Your task to perform on an android device: Open Youtube and go to "Your channel" Image 0: 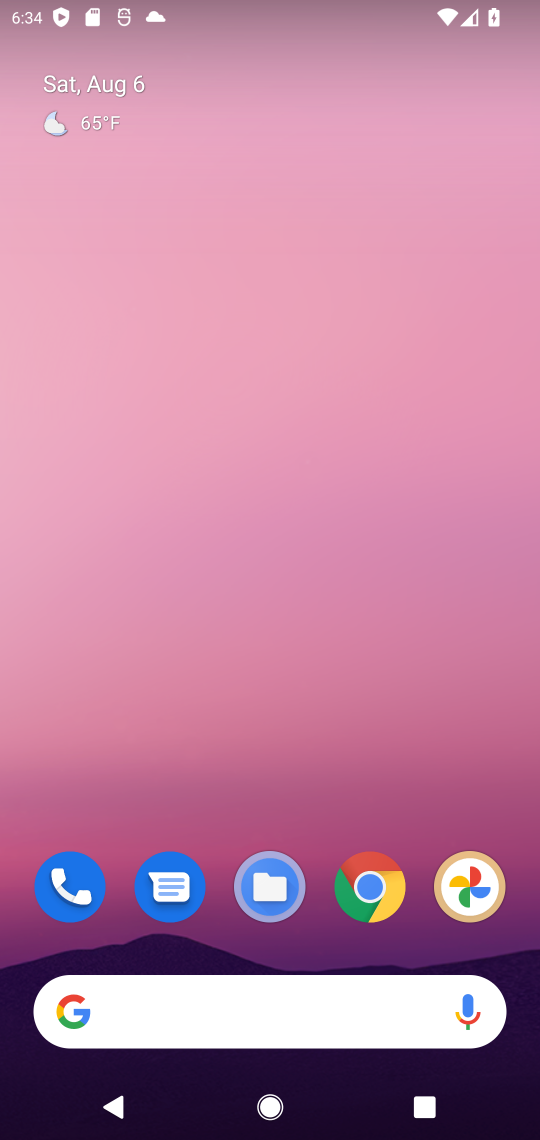
Step 0: click (155, 361)
Your task to perform on an android device: Open Youtube and go to "Your channel" Image 1: 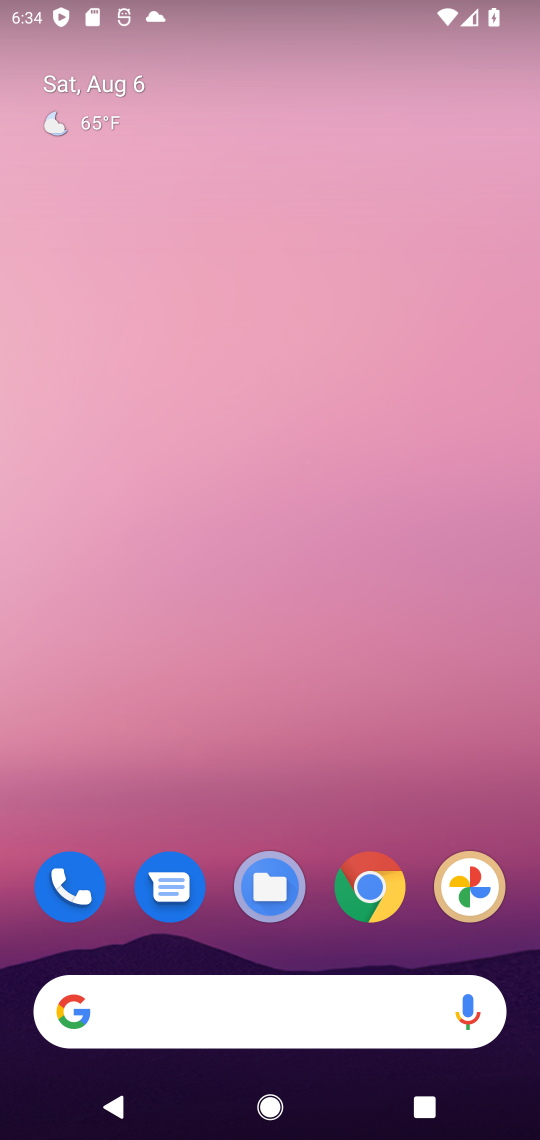
Step 1: drag from (269, 313) to (259, 250)
Your task to perform on an android device: Open Youtube and go to "Your channel" Image 2: 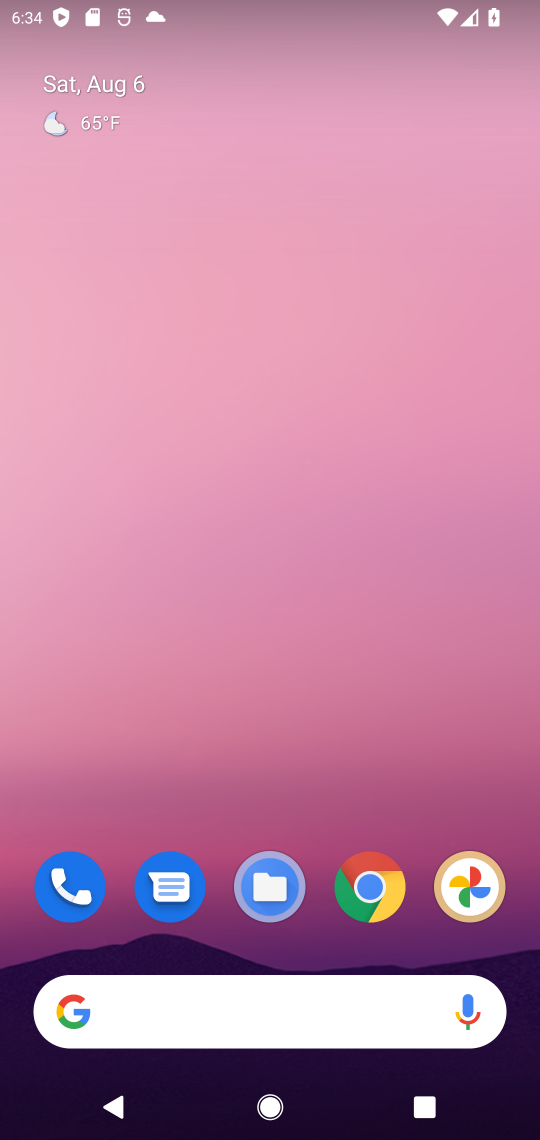
Step 2: drag from (256, 644) to (209, 323)
Your task to perform on an android device: Open Youtube and go to "Your channel" Image 3: 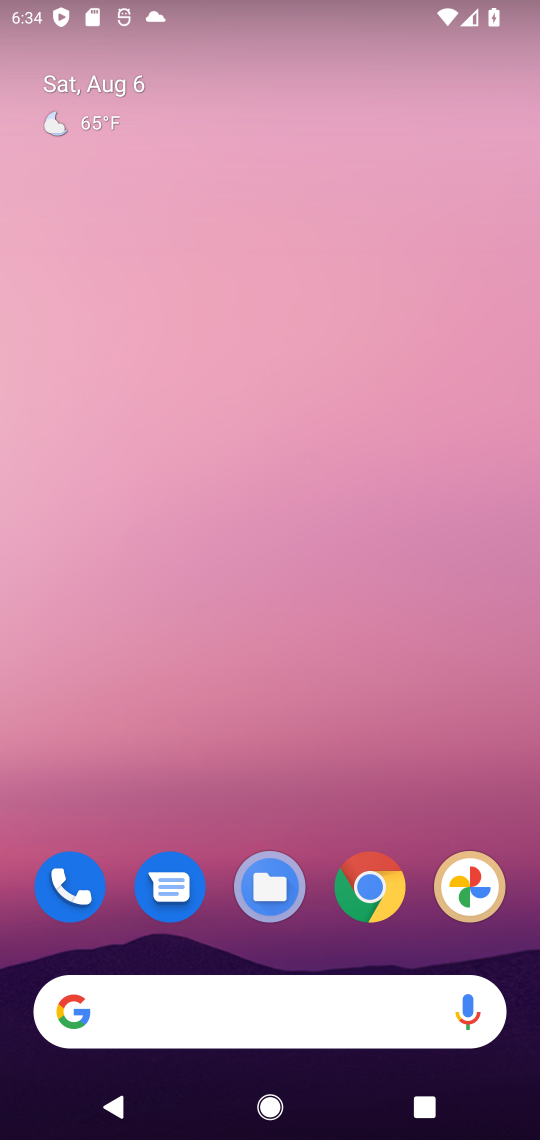
Step 3: drag from (279, 415) to (264, 221)
Your task to perform on an android device: Open Youtube and go to "Your channel" Image 4: 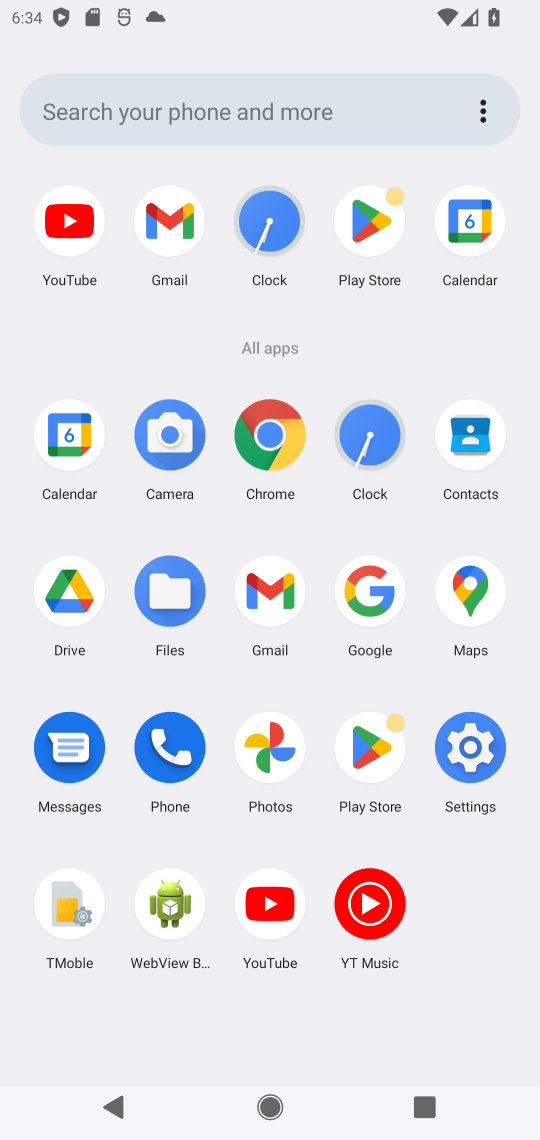
Step 4: drag from (331, 815) to (251, 272)
Your task to perform on an android device: Open Youtube and go to "Your channel" Image 5: 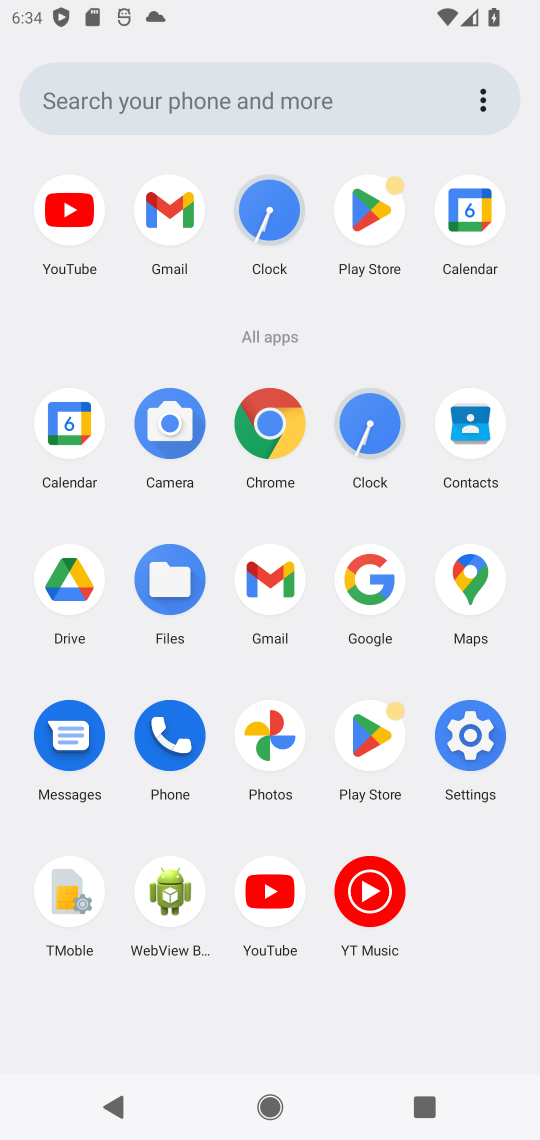
Step 5: click (271, 865)
Your task to perform on an android device: Open Youtube and go to "Your channel" Image 6: 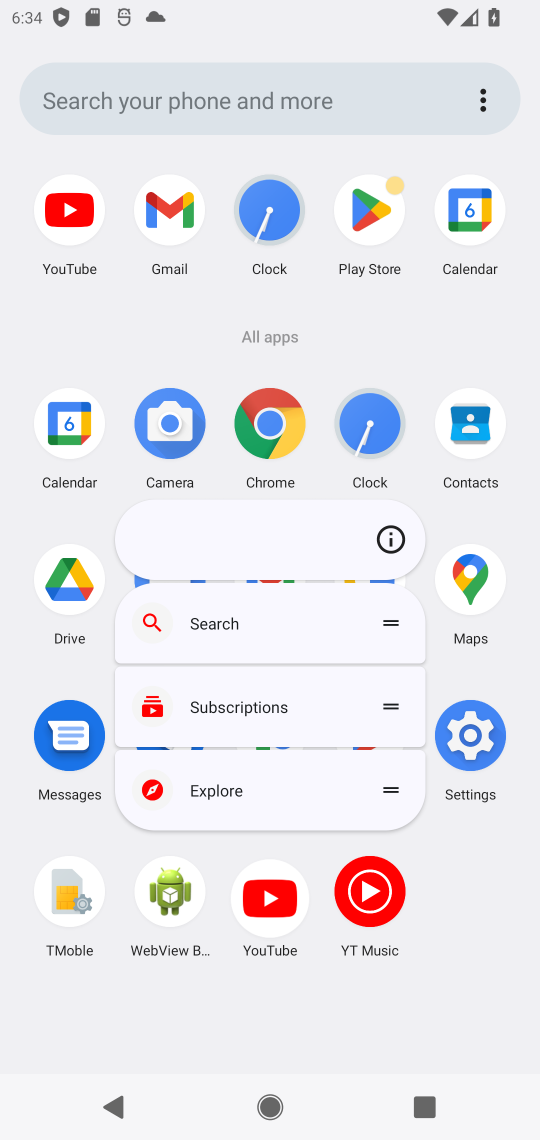
Step 6: click (267, 883)
Your task to perform on an android device: Open Youtube and go to "Your channel" Image 7: 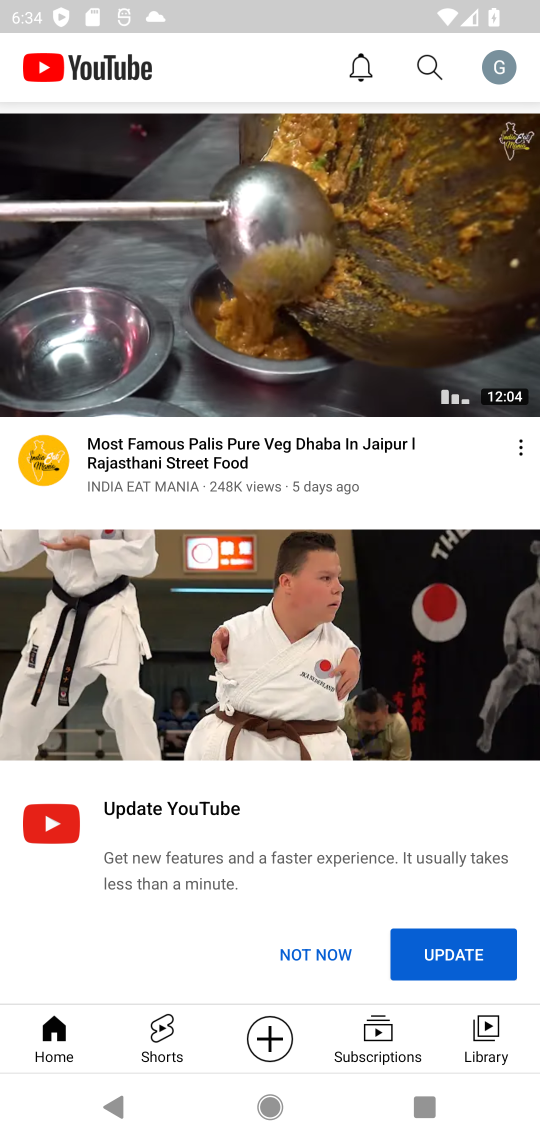
Step 7: task complete